Your task to perform on an android device: Open Google Chrome and open the bookmarks view Image 0: 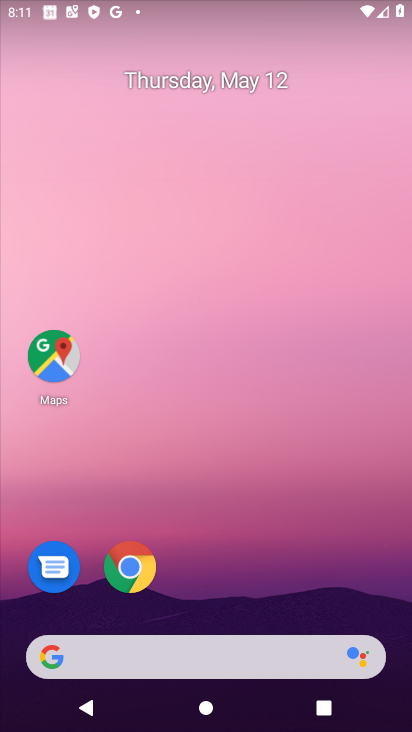
Step 0: drag from (235, 638) to (236, 249)
Your task to perform on an android device: Open Google Chrome and open the bookmarks view Image 1: 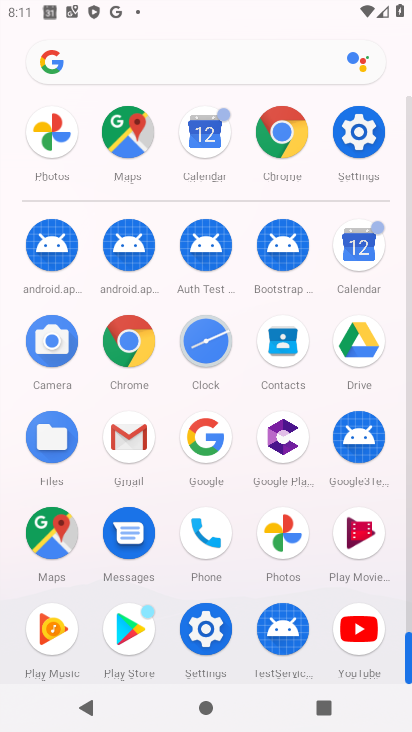
Step 1: click (279, 146)
Your task to perform on an android device: Open Google Chrome and open the bookmarks view Image 2: 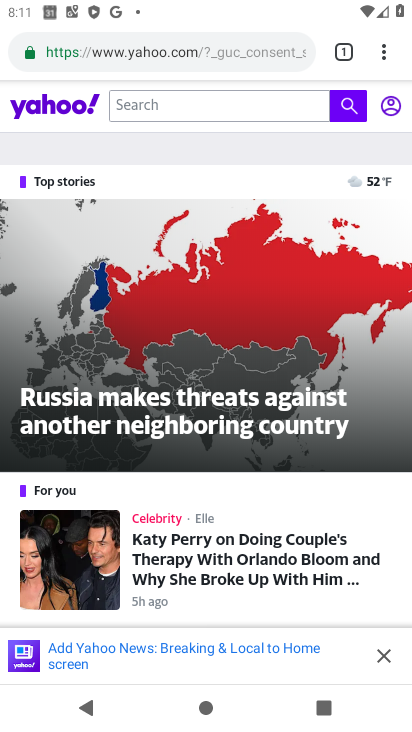
Step 2: click (381, 53)
Your task to perform on an android device: Open Google Chrome and open the bookmarks view Image 3: 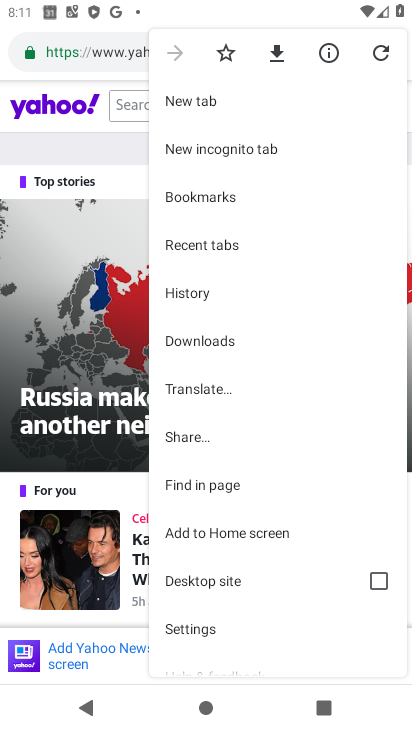
Step 3: click (213, 200)
Your task to perform on an android device: Open Google Chrome and open the bookmarks view Image 4: 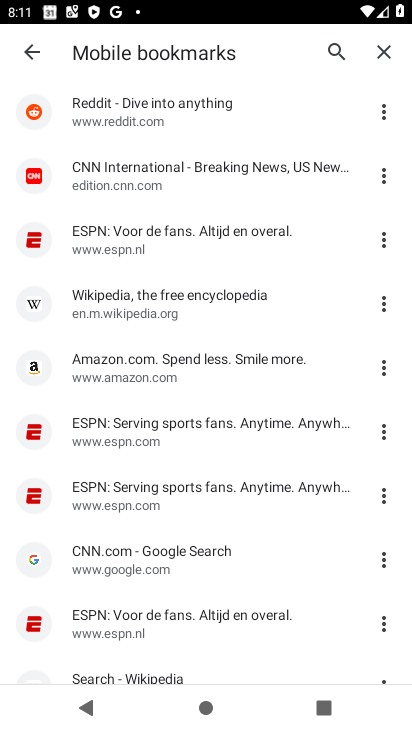
Step 4: task complete